Your task to perform on an android device: Go to sound settings Image 0: 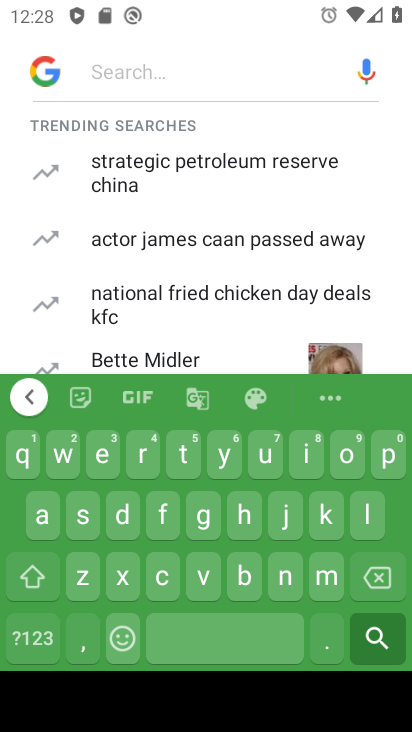
Step 0: press home button
Your task to perform on an android device: Go to sound settings Image 1: 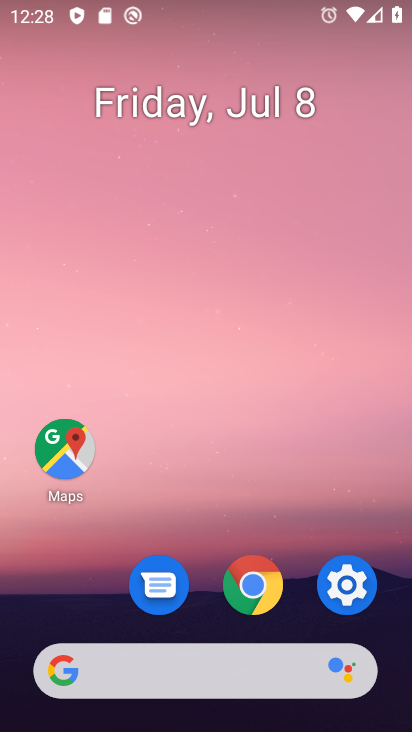
Step 1: click (330, 590)
Your task to perform on an android device: Go to sound settings Image 2: 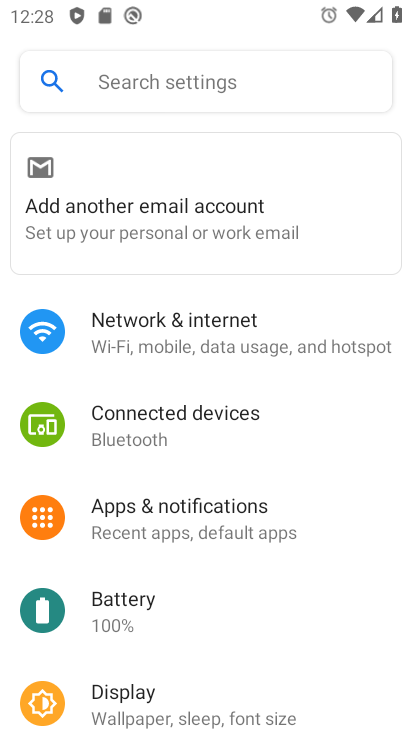
Step 2: drag from (84, 568) to (230, 286)
Your task to perform on an android device: Go to sound settings Image 3: 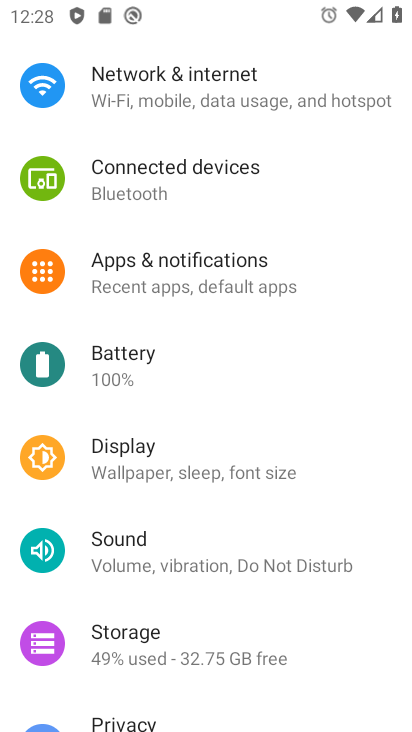
Step 3: click (130, 554)
Your task to perform on an android device: Go to sound settings Image 4: 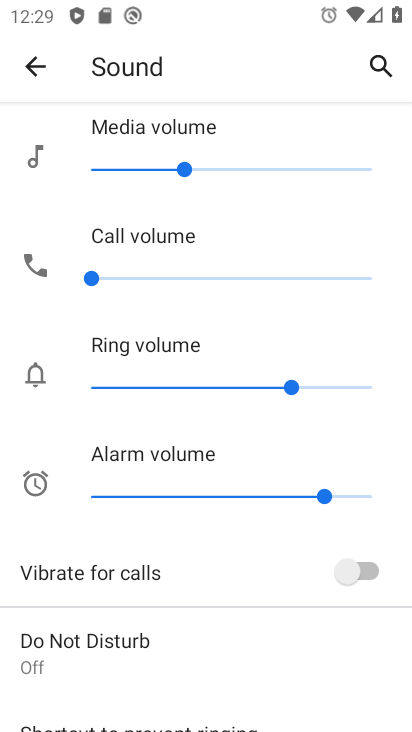
Step 4: task complete